Your task to perform on an android device: Open the stopwatch Image 0: 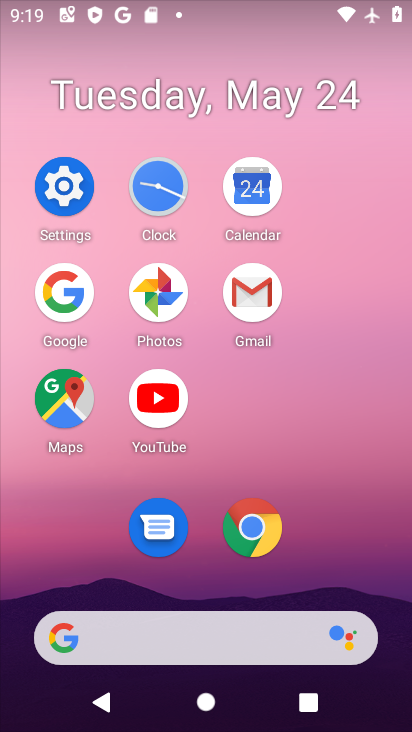
Step 0: click (174, 200)
Your task to perform on an android device: Open the stopwatch Image 1: 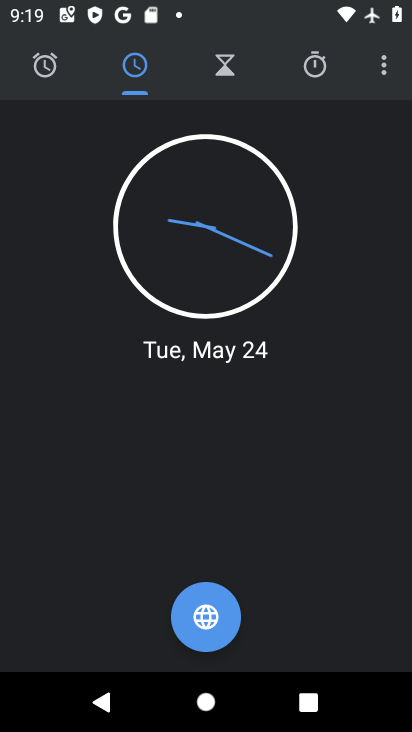
Step 1: click (297, 75)
Your task to perform on an android device: Open the stopwatch Image 2: 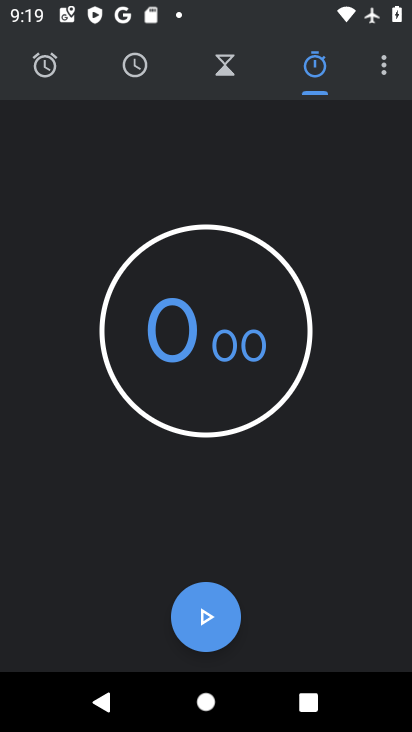
Step 2: click (221, 613)
Your task to perform on an android device: Open the stopwatch Image 3: 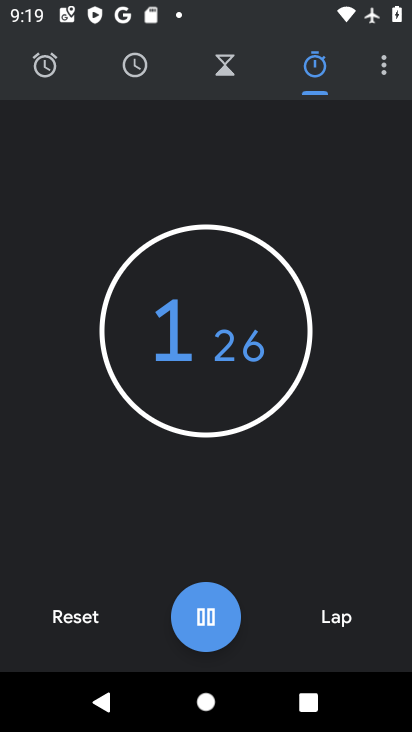
Step 3: task complete